Your task to perform on an android device: search for starred emails in the gmail app Image 0: 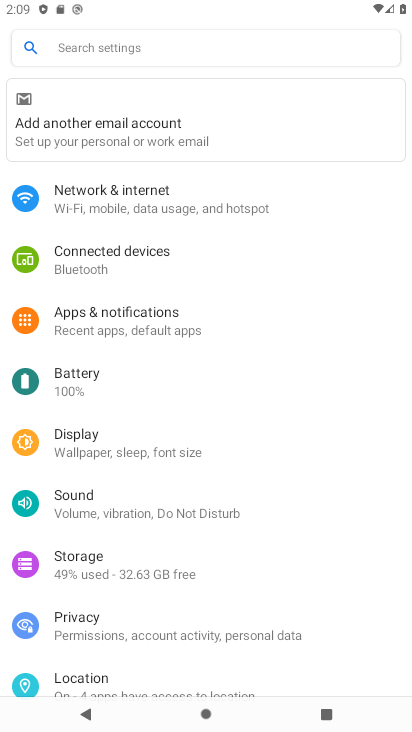
Step 0: drag from (179, 602) to (213, 386)
Your task to perform on an android device: search for starred emails in the gmail app Image 1: 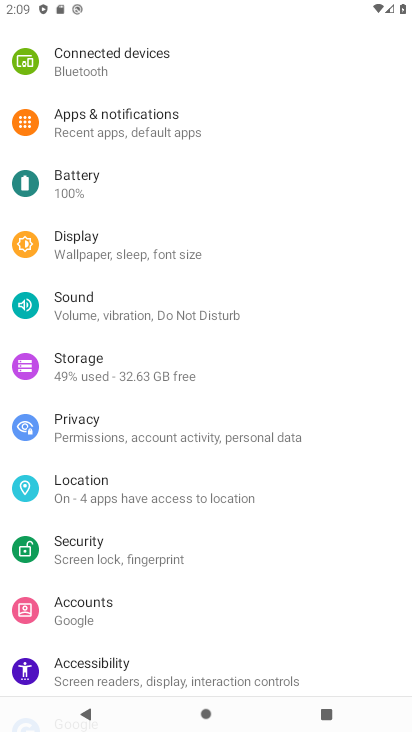
Step 1: press home button
Your task to perform on an android device: search for starred emails in the gmail app Image 2: 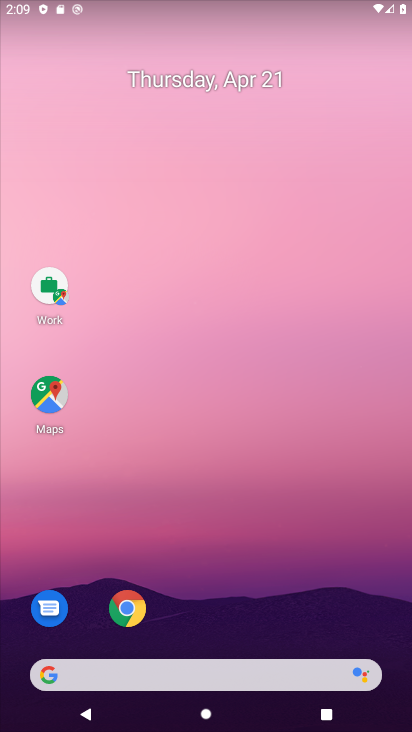
Step 2: drag from (191, 577) to (170, 174)
Your task to perform on an android device: search for starred emails in the gmail app Image 3: 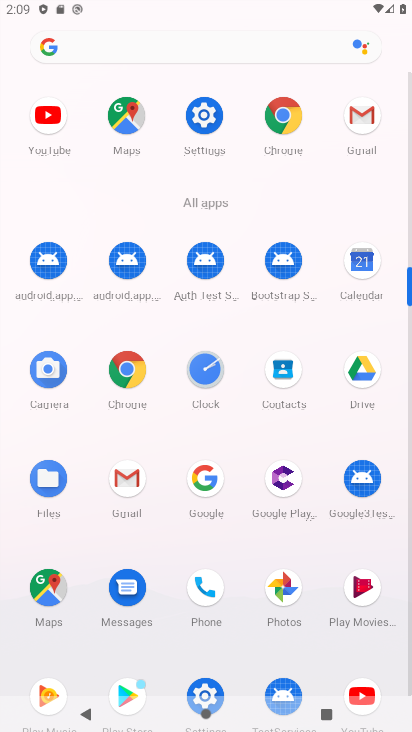
Step 3: click (352, 112)
Your task to perform on an android device: search for starred emails in the gmail app Image 4: 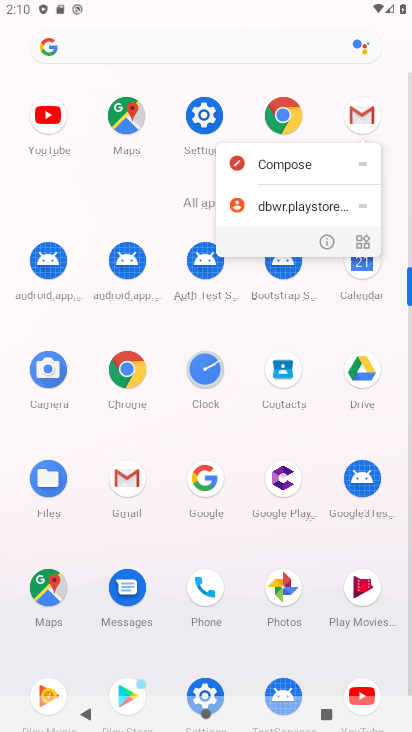
Step 4: click (369, 112)
Your task to perform on an android device: search for starred emails in the gmail app Image 5: 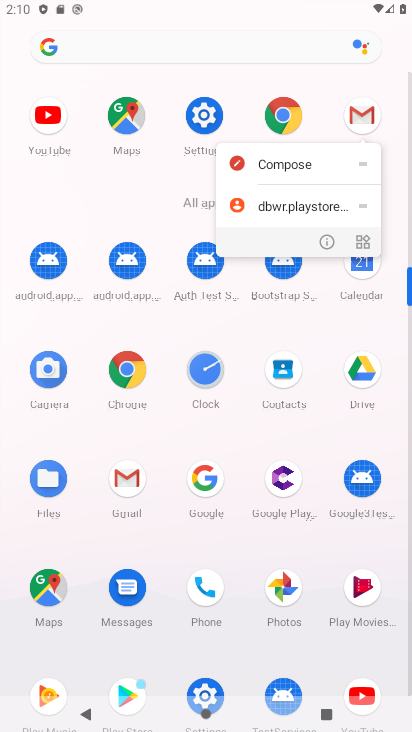
Step 5: click (375, 113)
Your task to perform on an android device: search for starred emails in the gmail app Image 6: 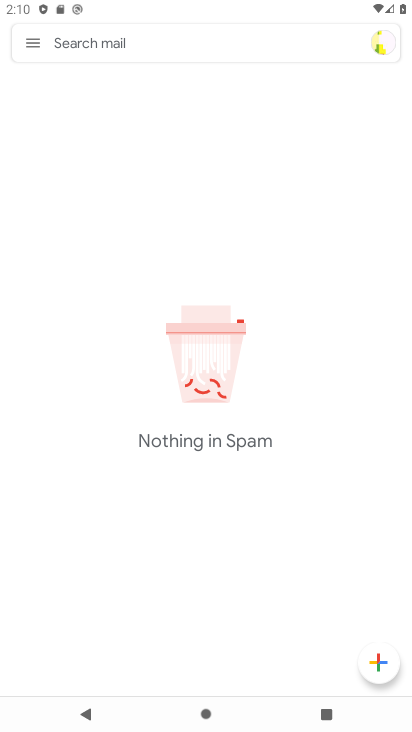
Step 6: click (29, 41)
Your task to perform on an android device: search for starred emails in the gmail app Image 7: 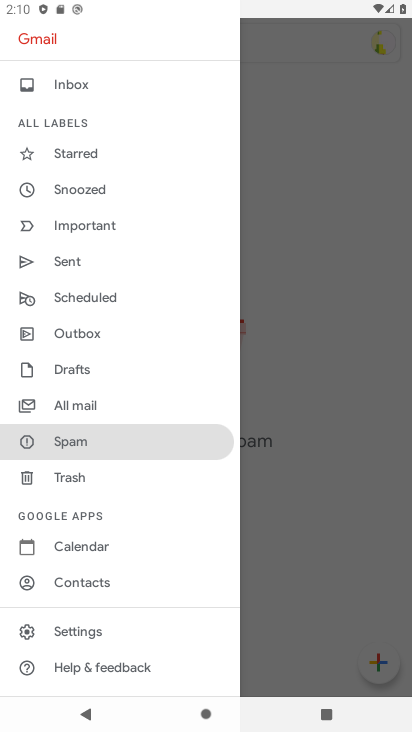
Step 7: click (84, 411)
Your task to perform on an android device: search for starred emails in the gmail app Image 8: 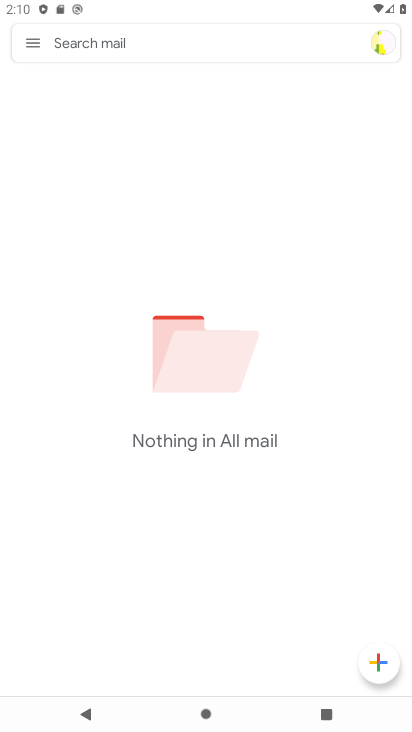
Step 8: task complete